Your task to perform on an android device: Search for seafood restaurants on Google Maps Image 0: 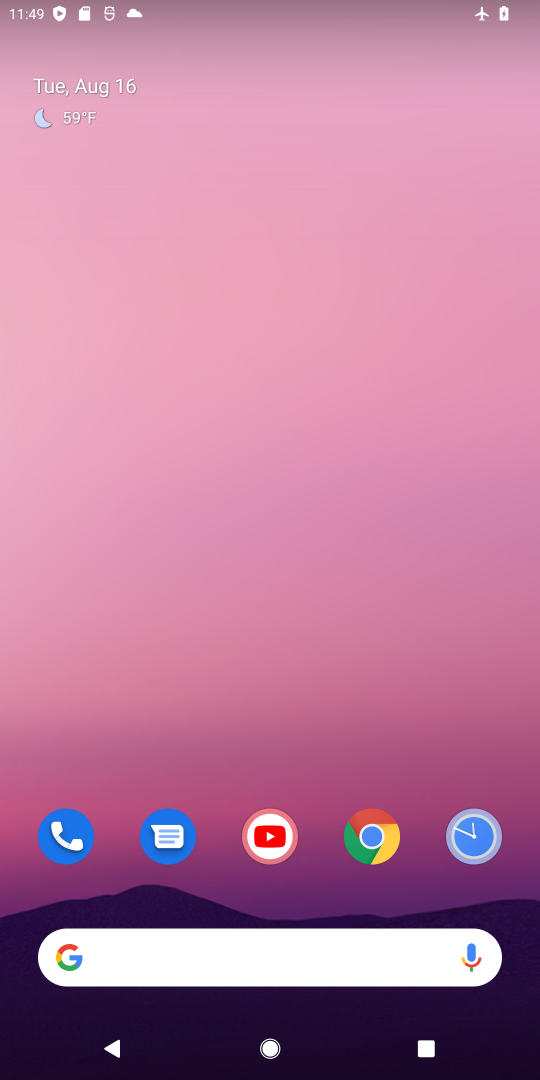
Step 0: drag from (283, 961) to (253, 176)
Your task to perform on an android device: Search for seafood restaurants on Google Maps Image 1: 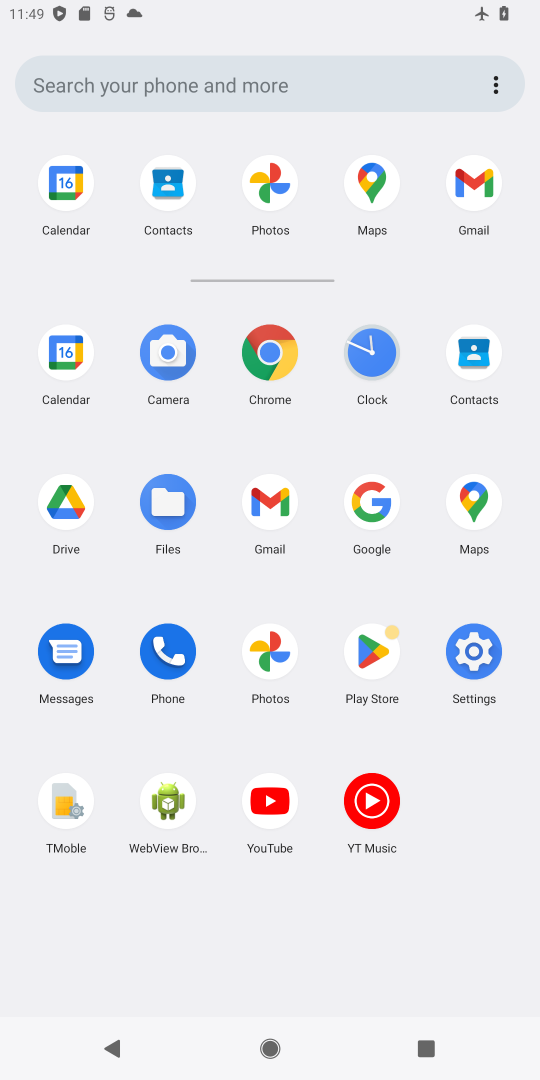
Step 1: click (368, 178)
Your task to perform on an android device: Search for seafood restaurants on Google Maps Image 2: 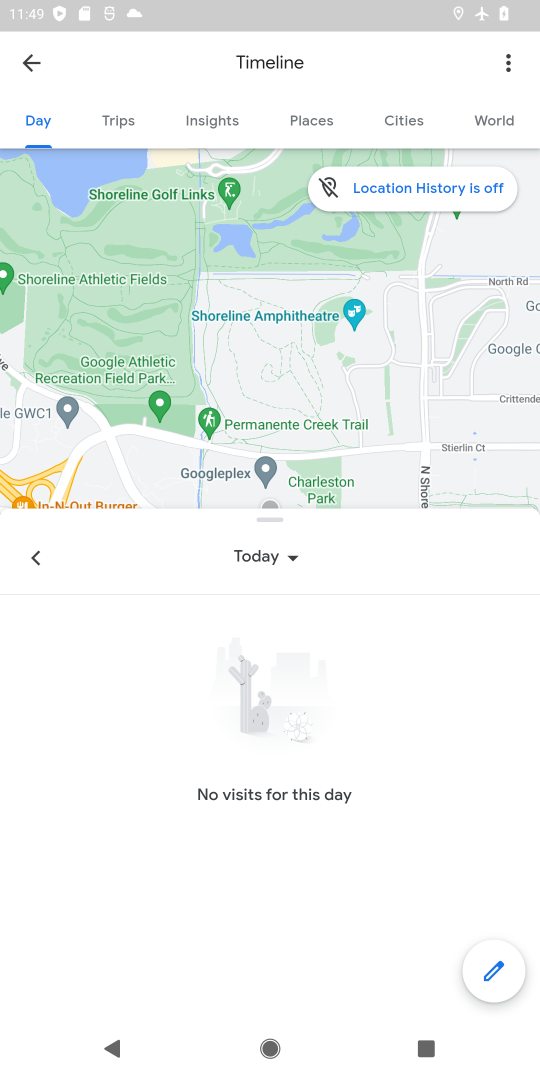
Step 2: task complete